Your task to perform on an android device: turn on translation in the chrome app Image 0: 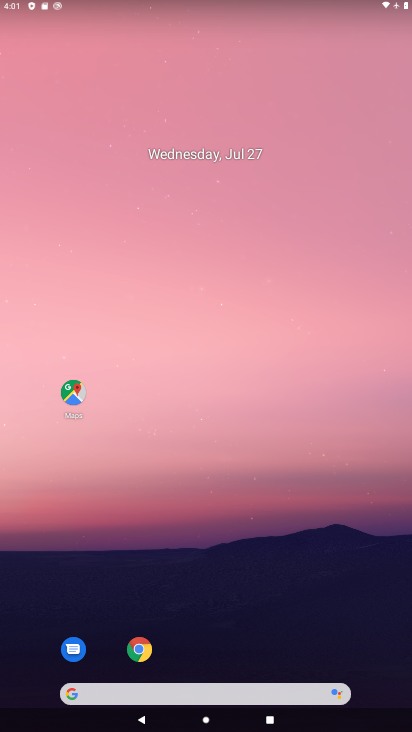
Step 0: click (138, 655)
Your task to perform on an android device: turn on translation in the chrome app Image 1: 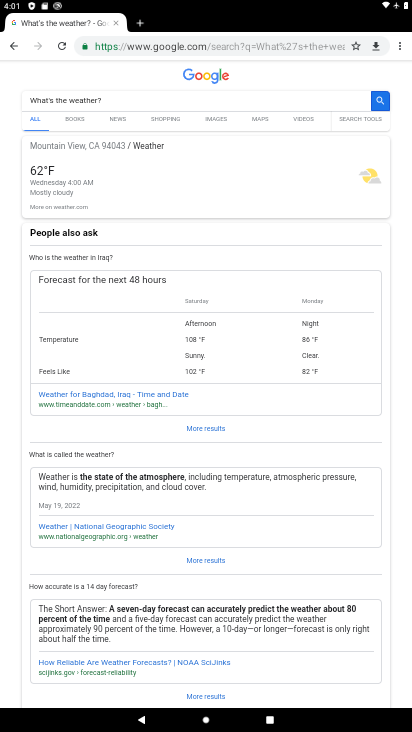
Step 1: click (398, 45)
Your task to perform on an android device: turn on translation in the chrome app Image 2: 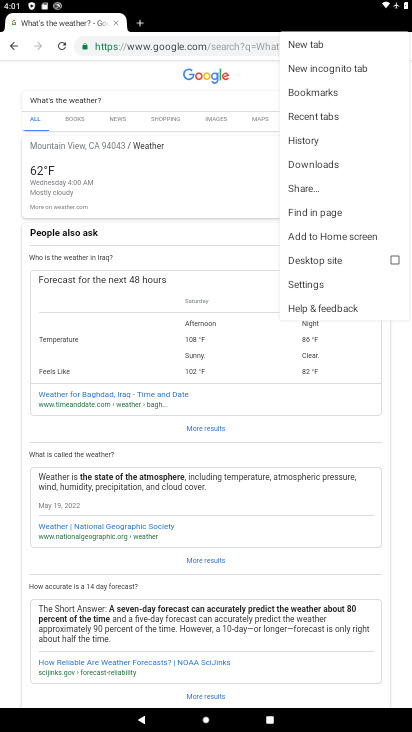
Step 2: click (328, 284)
Your task to perform on an android device: turn on translation in the chrome app Image 3: 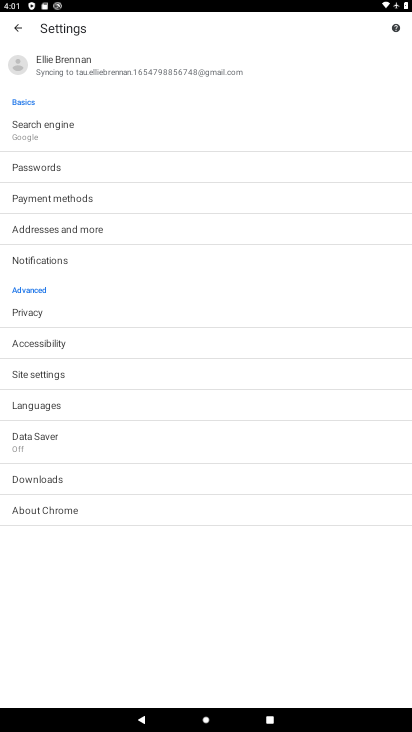
Step 3: click (64, 406)
Your task to perform on an android device: turn on translation in the chrome app Image 4: 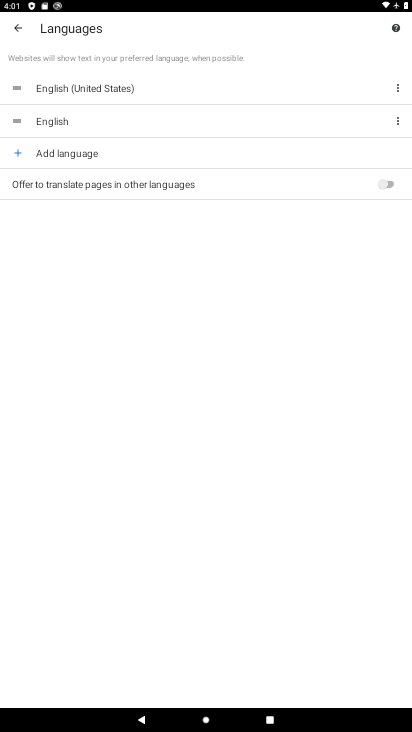
Step 4: click (381, 192)
Your task to perform on an android device: turn on translation in the chrome app Image 5: 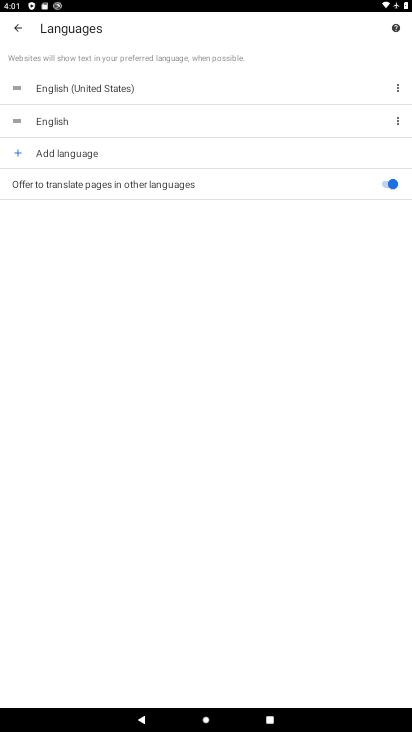
Step 5: task complete